Your task to perform on an android device: Open CNN.com Image 0: 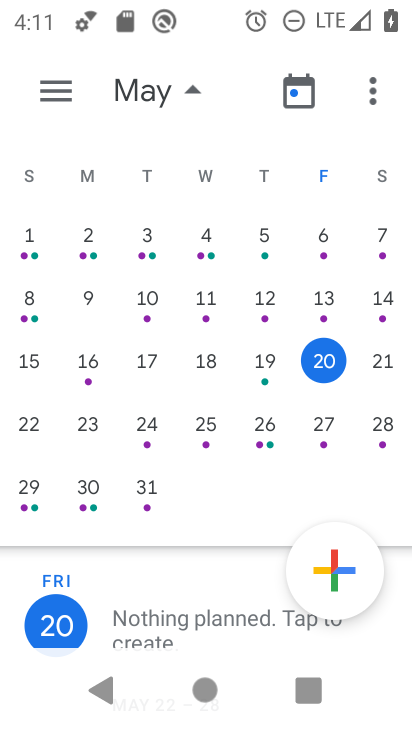
Step 0: press home button
Your task to perform on an android device: Open CNN.com Image 1: 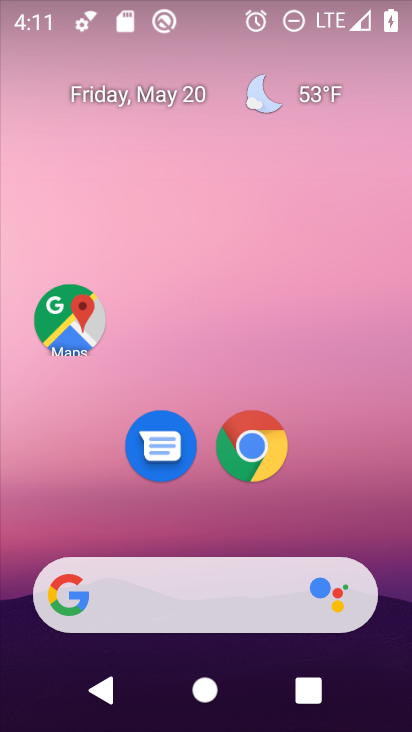
Step 1: click (245, 460)
Your task to perform on an android device: Open CNN.com Image 2: 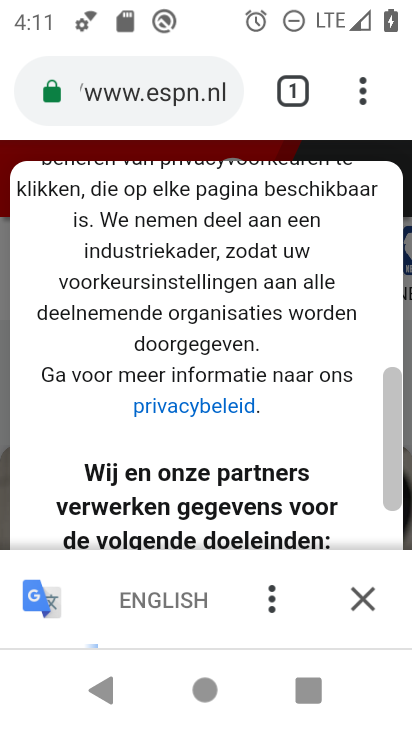
Step 2: click (186, 107)
Your task to perform on an android device: Open CNN.com Image 3: 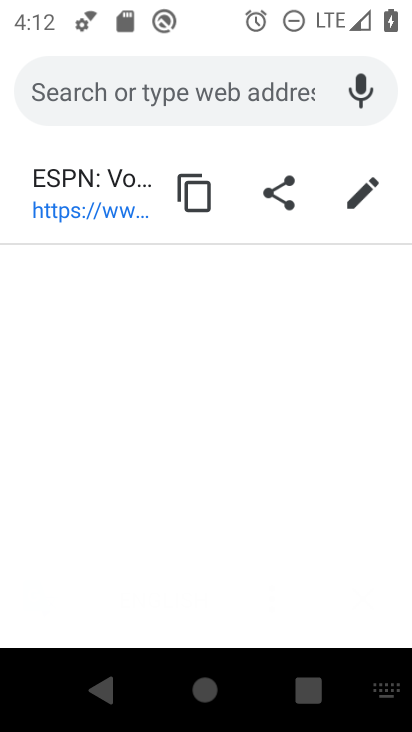
Step 3: click (189, 95)
Your task to perform on an android device: Open CNN.com Image 4: 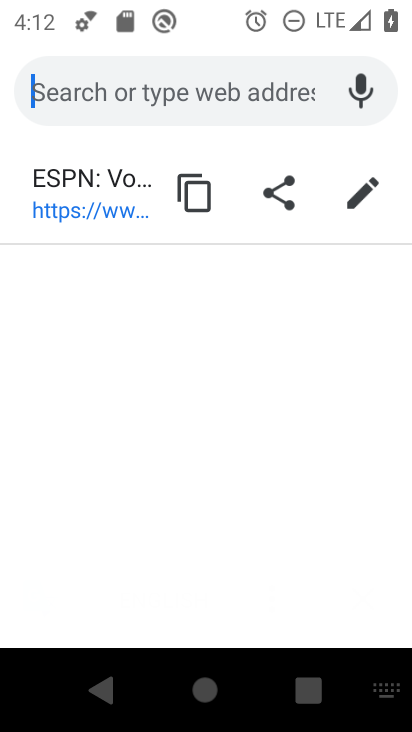
Step 4: type "cnn"
Your task to perform on an android device: Open CNN.com Image 5: 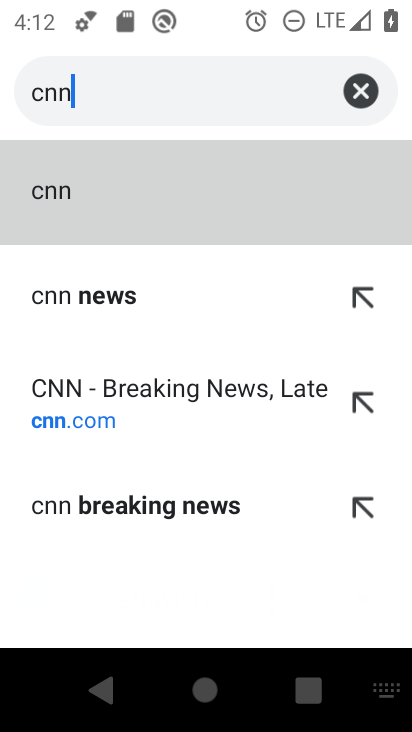
Step 5: click (110, 408)
Your task to perform on an android device: Open CNN.com Image 6: 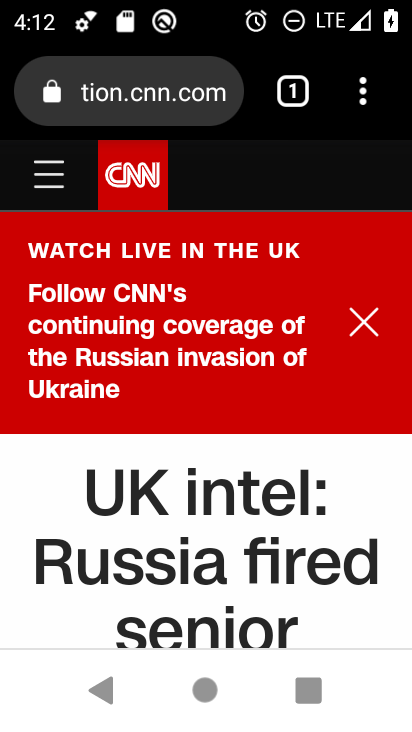
Step 6: task complete